Your task to perform on an android device: make emails show in primary in the gmail app Image 0: 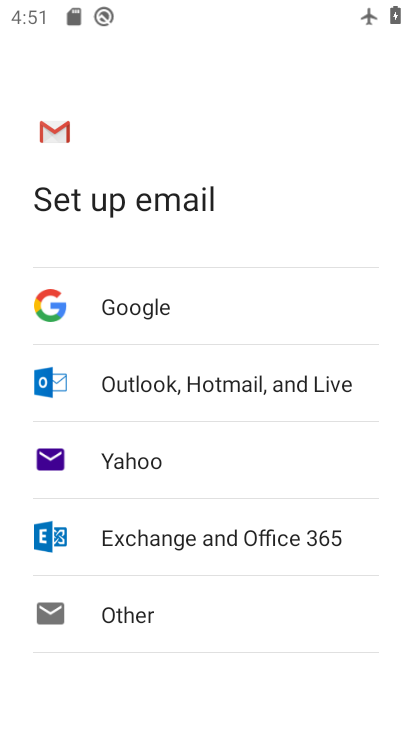
Step 0: press home button
Your task to perform on an android device: make emails show in primary in the gmail app Image 1: 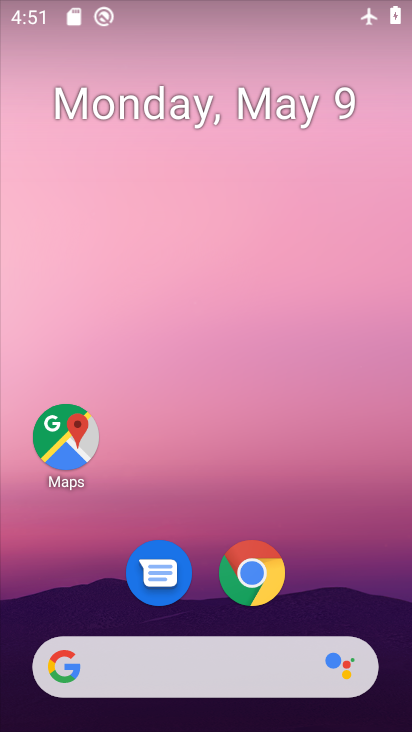
Step 1: drag from (400, 635) to (286, 153)
Your task to perform on an android device: make emails show in primary in the gmail app Image 2: 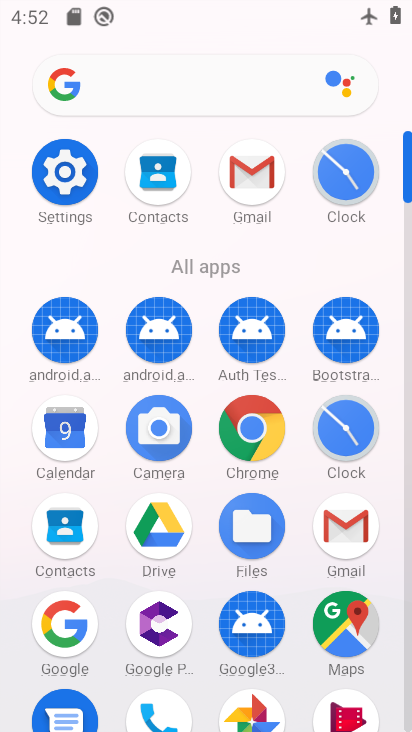
Step 2: click (343, 523)
Your task to perform on an android device: make emails show in primary in the gmail app Image 3: 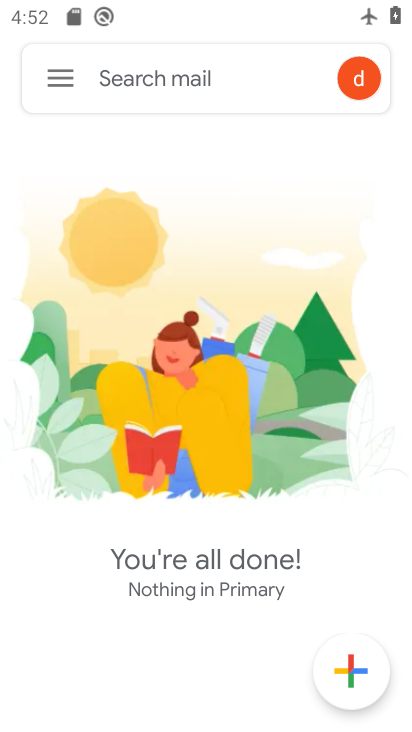
Step 3: click (53, 68)
Your task to perform on an android device: make emails show in primary in the gmail app Image 4: 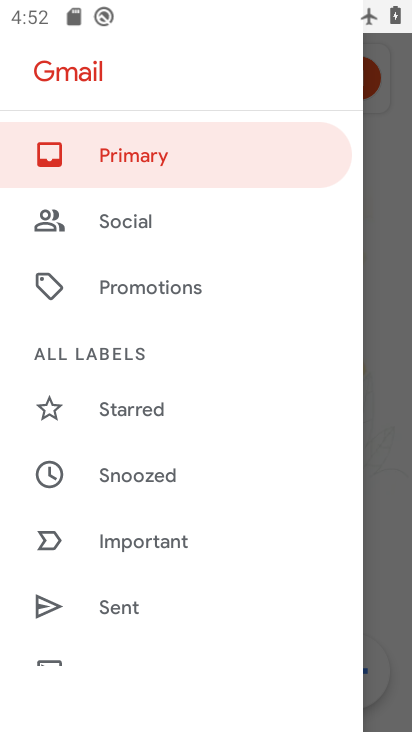
Step 4: drag from (249, 590) to (257, 546)
Your task to perform on an android device: make emails show in primary in the gmail app Image 5: 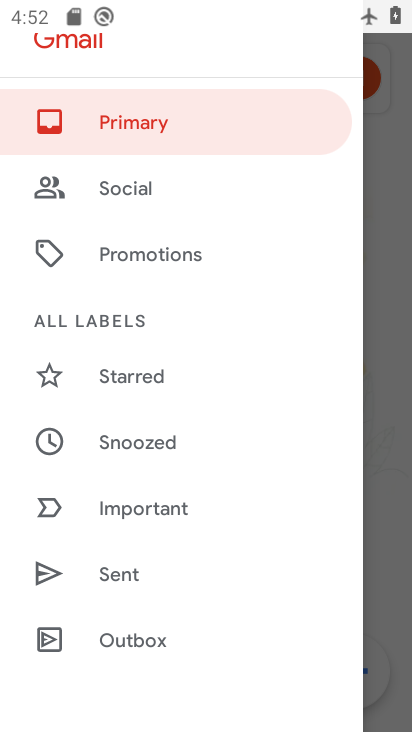
Step 5: click (132, 122)
Your task to perform on an android device: make emails show in primary in the gmail app Image 6: 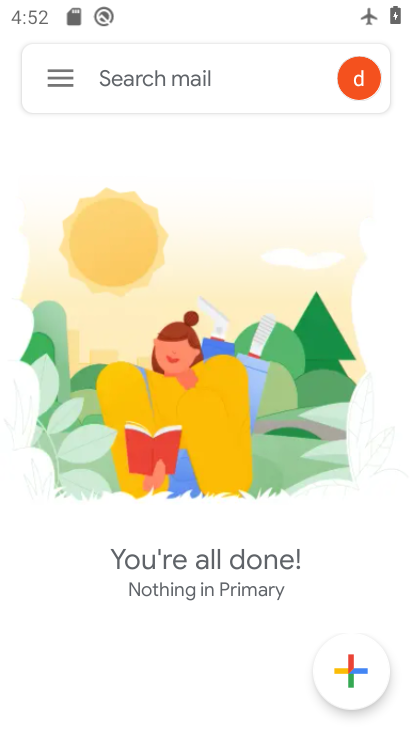
Step 6: task complete